Your task to perform on an android device: Go to Wikipedia Image 0: 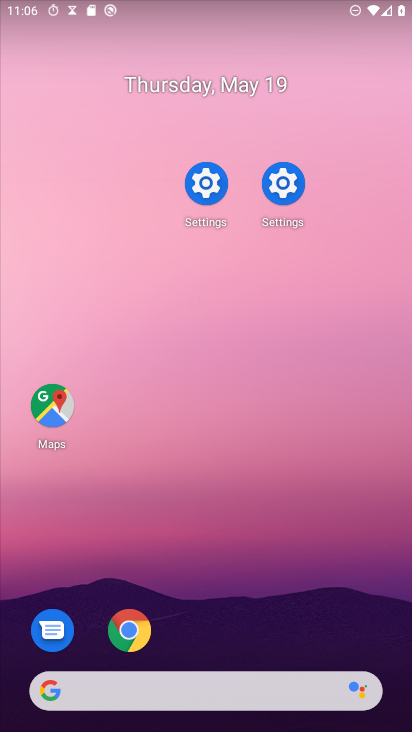
Step 0: drag from (180, 507) to (0, 168)
Your task to perform on an android device: Go to Wikipedia Image 1: 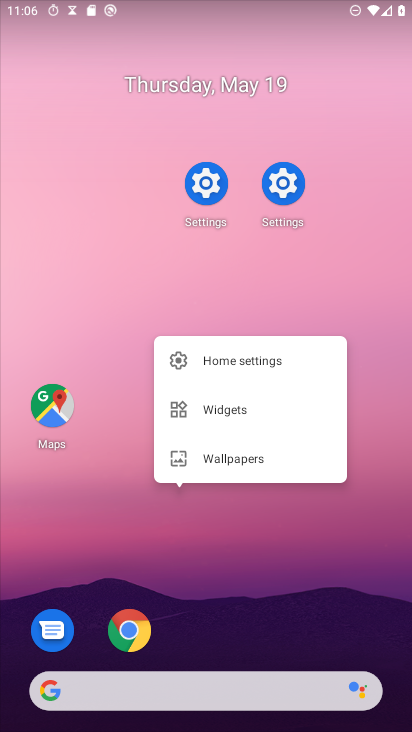
Step 1: drag from (284, 635) to (167, 42)
Your task to perform on an android device: Go to Wikipedia Image 2: 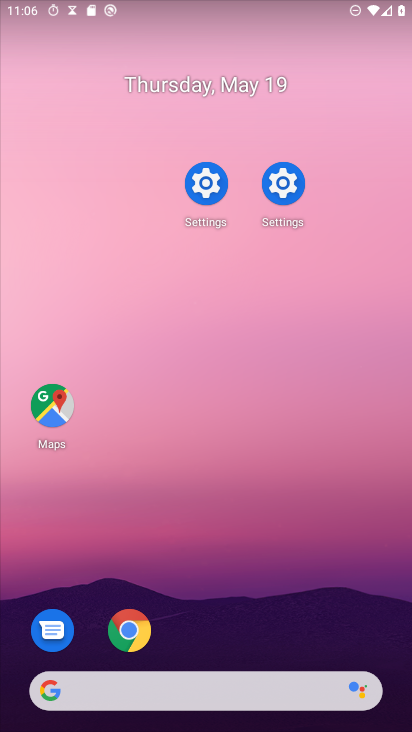
Step 2: drag from (229, 515) to (192, 18)
Your task to perform on an android device: Go to Wikipedia Image 3: 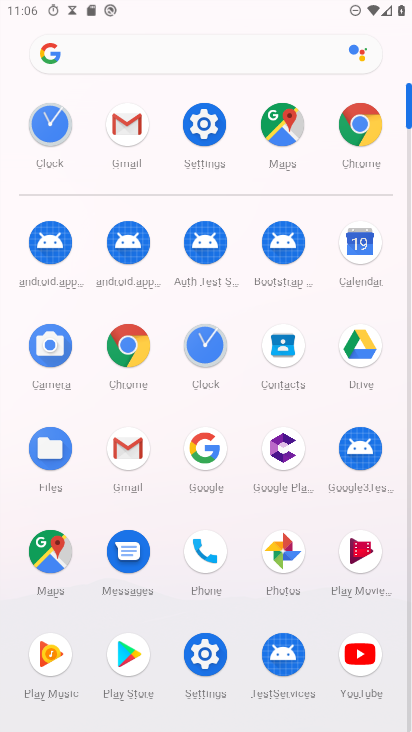
Step 3: drag from (268, 403) to (268, 42)
Your task to perform on an android device: Go to Wikipedia Image 4: 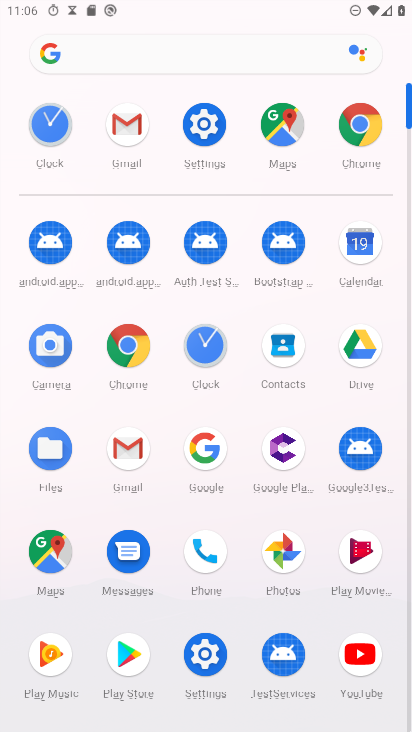
Step 4: click (360, 116)
Your task to perform on an android device: Go to Wikipedia Image 5: 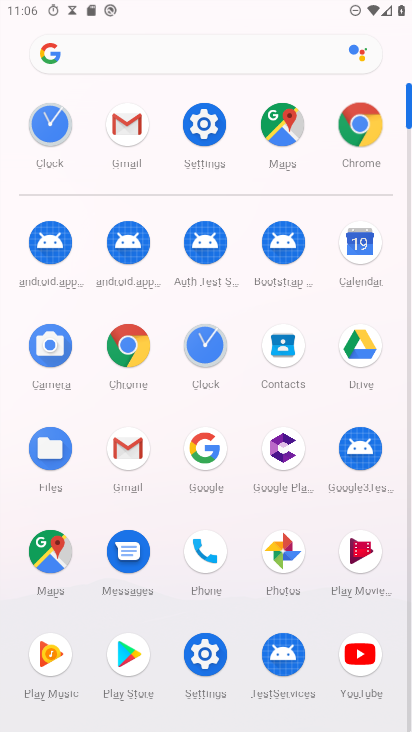
Step 5: click (360, 116)
Your task to perform on an android device: Go to Wikipedia Image 6: 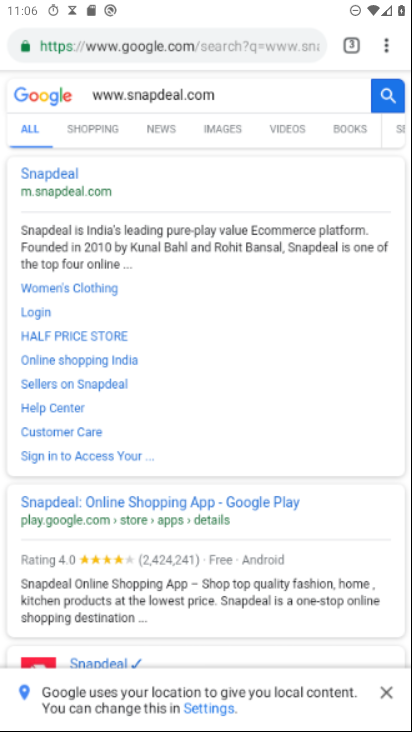
Step 6: click (360, 116)
Your task to perform on an android device: Go to Wikipedia Image 7: 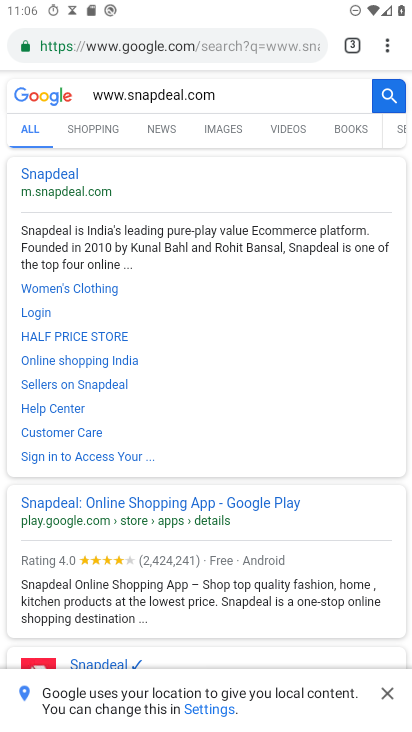
Step 7: click (360, 116)
Your task to perform on an android device: Go to Wikipedia Image 8: 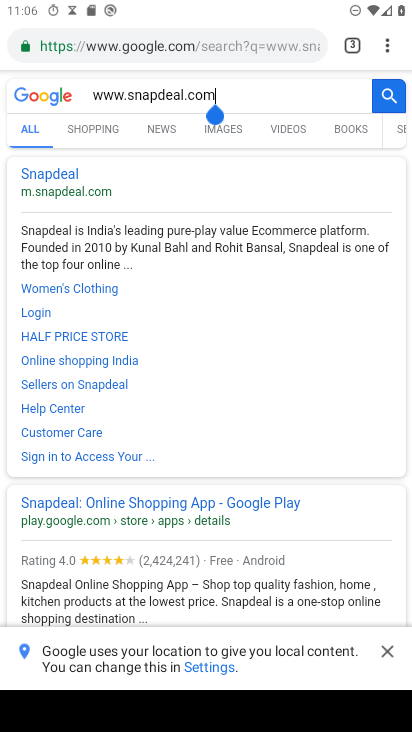
Step 8: drag from (388, 43) to (225, 75)
Your task to perform on an android device: Go to Wikipedia Image 9: 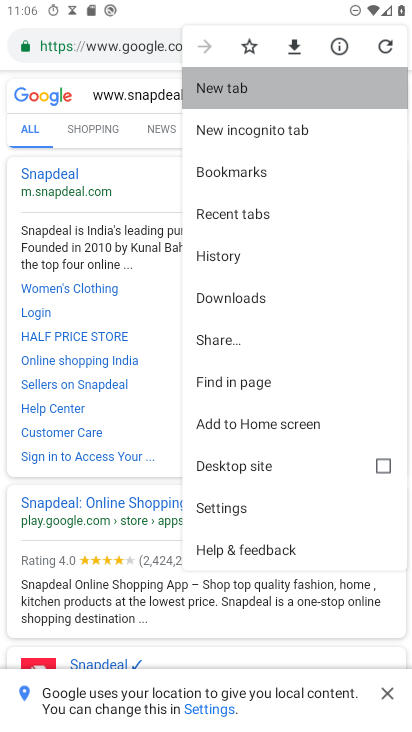
Step 9: click (225, 75)
Your task to perform on an android device: Go to Wikipedia Image 10: 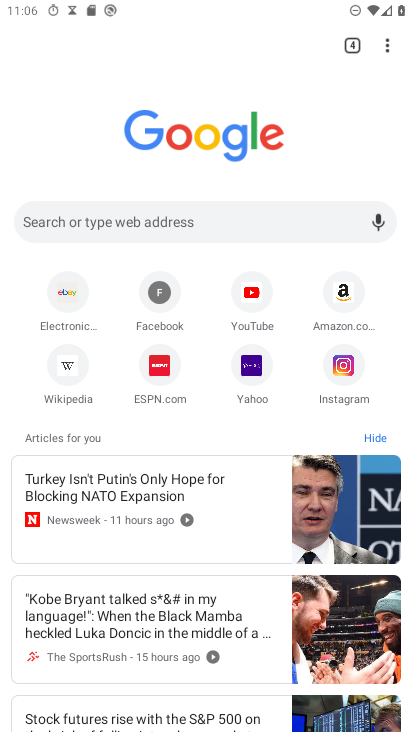
Step 10: click (225, 84)
Your task to perform on an android device: Go to Wikipedia Image 11: 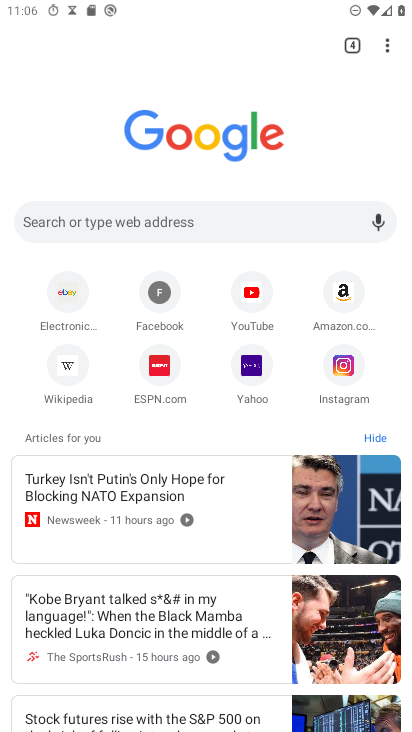
Step 11: click (59, 363)
Your task to perform on an android device: Go to Wikipedia Image 12: 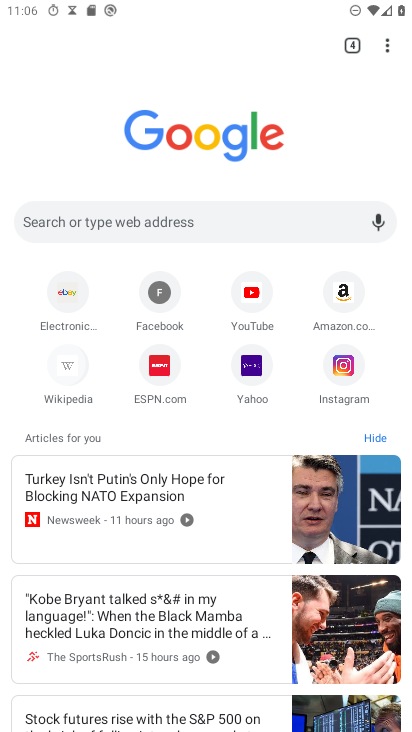
Step 12: click (62, 361)
Your task to perform on an android device: Go to Wikipedia Image 13: 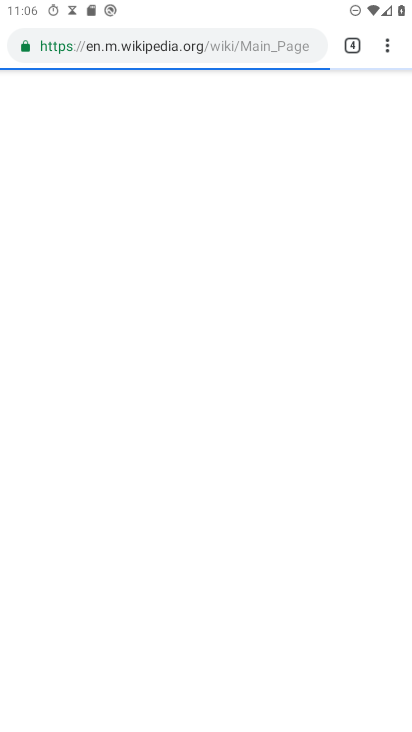
Step 13: click (66, 358)
Your task to perform on an android device: Go to Wikipedia Image 14: 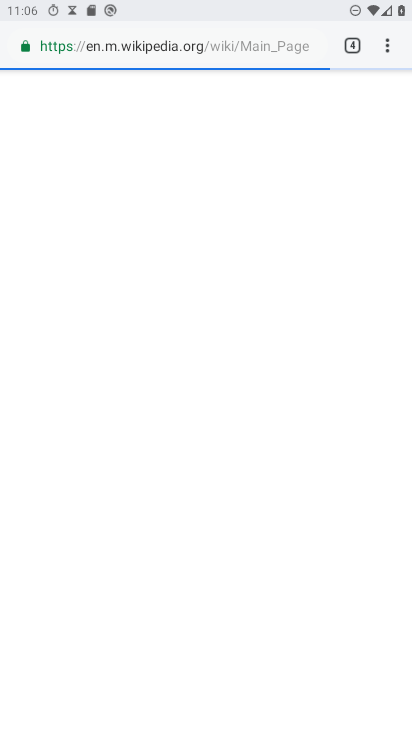
Step 14: click (66, 358)
Your task to perform on an android device: Go to Wikipedia Image 15: 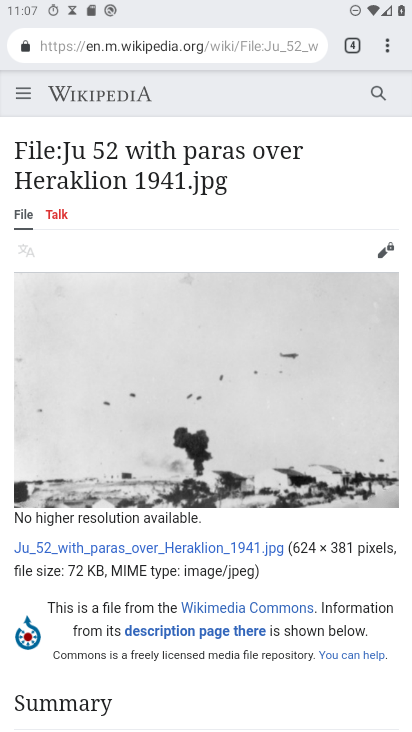
Step 15: task complete